Your task to perform on an android device: set default search engine in the chrome app Image 0: 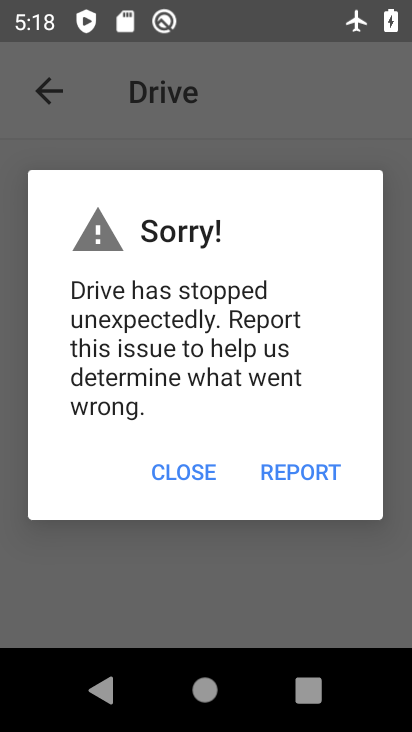
Step 0: press home button
Your task to perform on an android device: set default search engine in the chrome app Image 1: 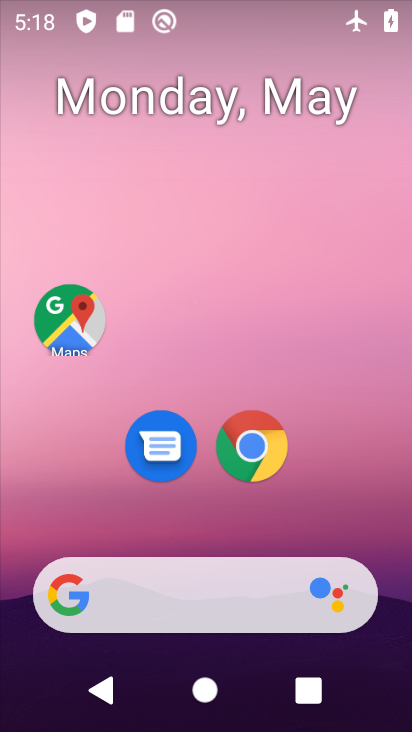
Step 1: click (249, 455)
Your task to perform on an android device: set default search engine in the chrome app Image 2: 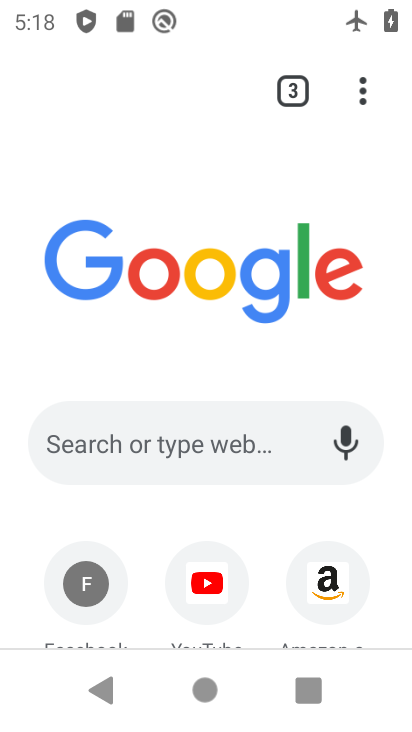
Step 2: click (355, 86)
Your task to perform on an android device: set default search engine in the chrome app Image 3: 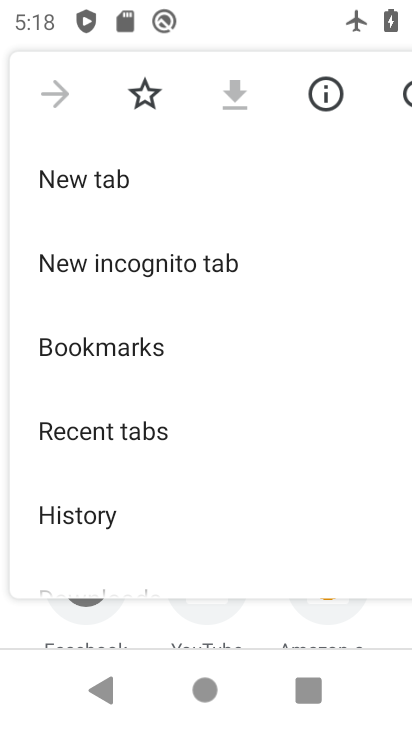
Step 3: drag from (243, 456) to (186, 120)
Your task to perform on an android device: set default search engine in the chrome app Image 4: 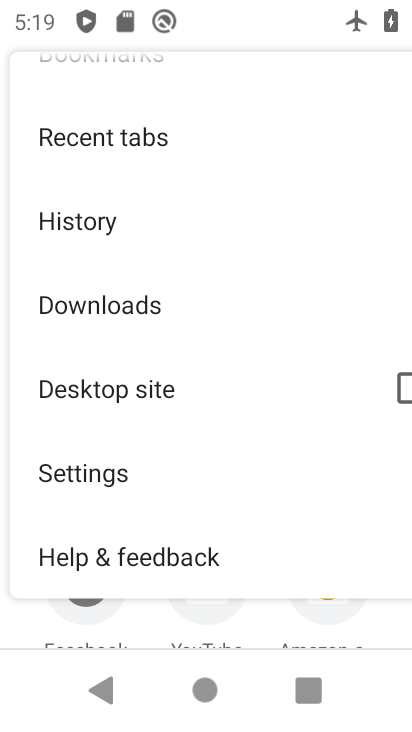
Step 4: click (107, 470)
Your task to perform on an android device: set default search engine in the chrome app Image 5: 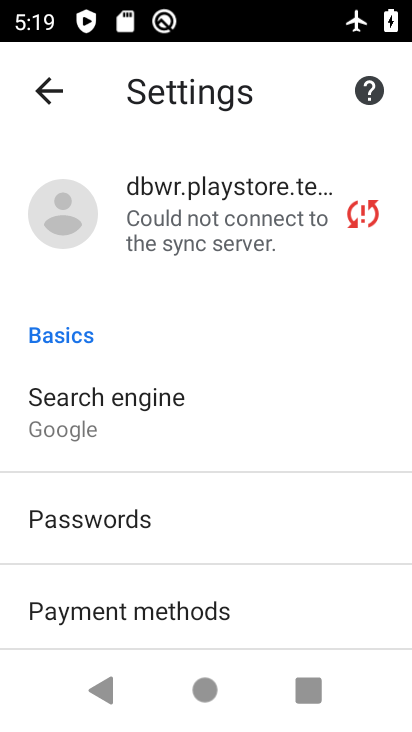
Step 5: click (89, 387)
Your task to perform on an android device: set default search engine in the chrome app Image 6: 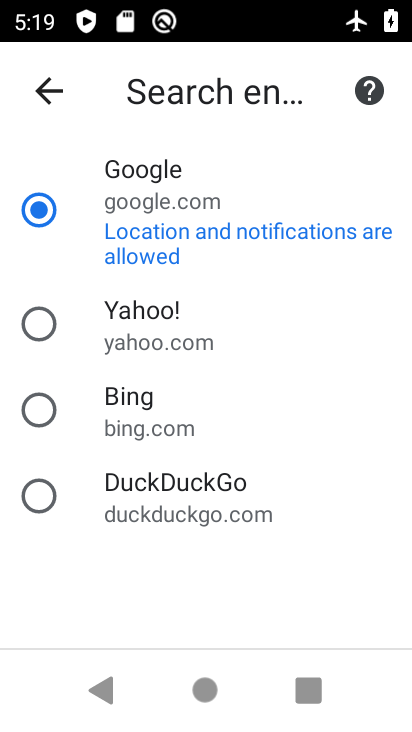
Step 6: click (53, 335)
Your task to perform on an android device: set default search engine in the chrome app Image 7: 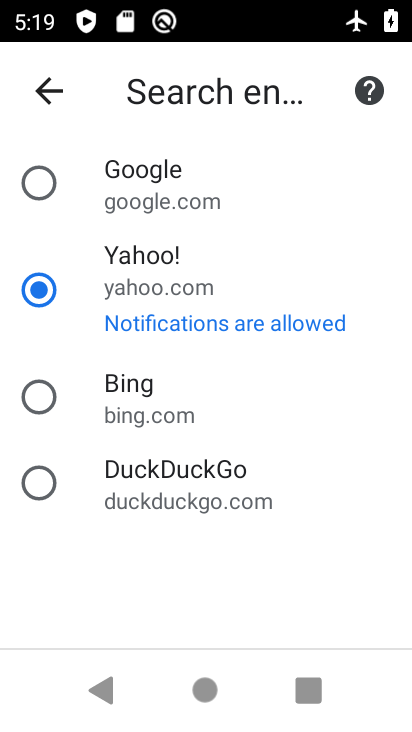
Step 7: task complete